Your task to perform on an android device: What's the weather going to be tomorrow? Image 0: 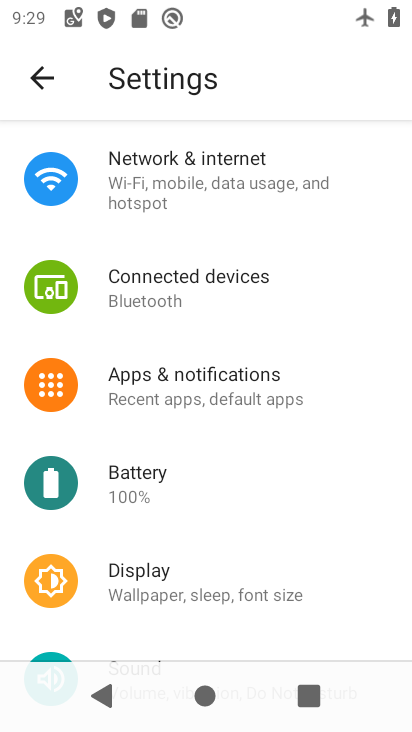
Step 0: press home button
Your task to perform on an android device: What's the weather going to be tomorrow? Image 1: 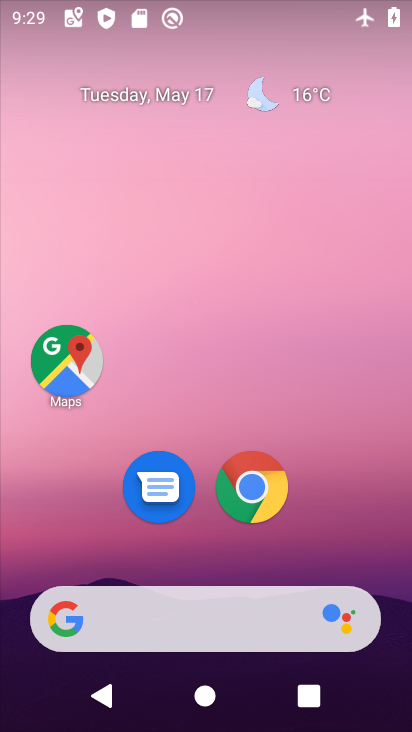
Step 1: click (285, 101)
Your task to perform on an android device: What's the weather going to be tomorrow? Image 2: 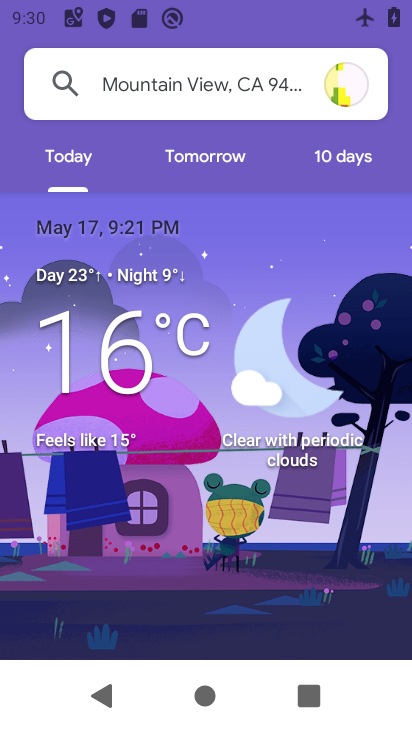
Step 2: click (182, 170)
Your task to perform on an android device: What's the weather going to be tomorrow? Image 3: 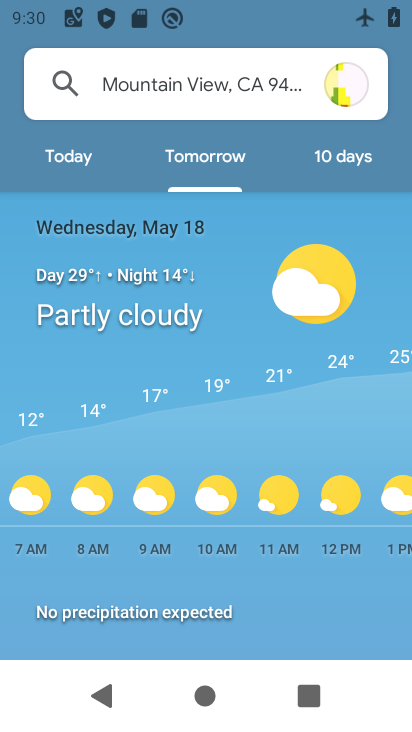
Step 3: task complete